Your task to perform on an android device: Check the news Image 0: 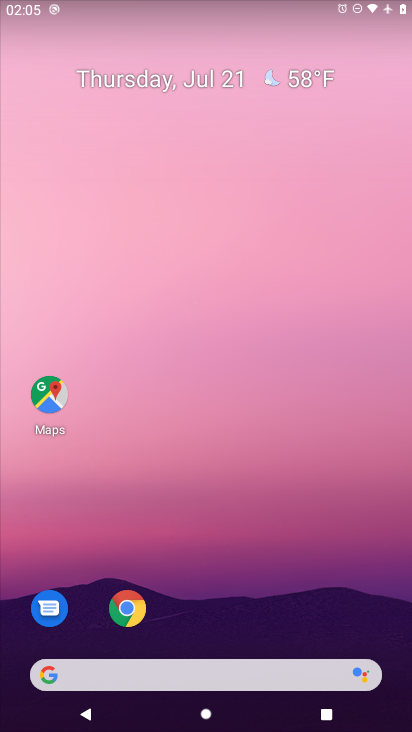
Step 0: press home button
Your task to perform on an android device: Check the news Image 1: 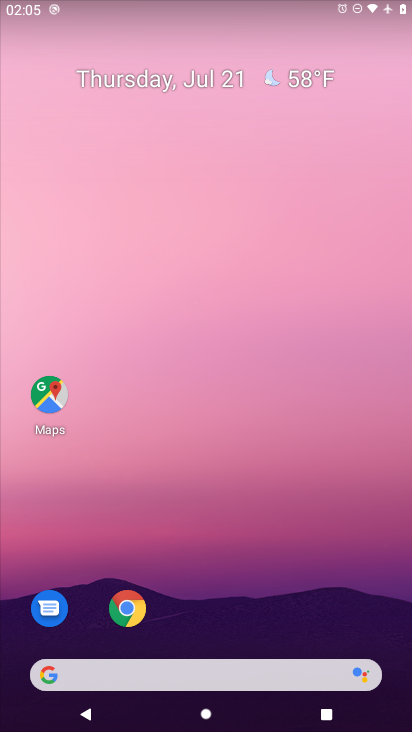
Step 1: click (52, 677)
Your task to perform on an android device: Check the news Image 2: 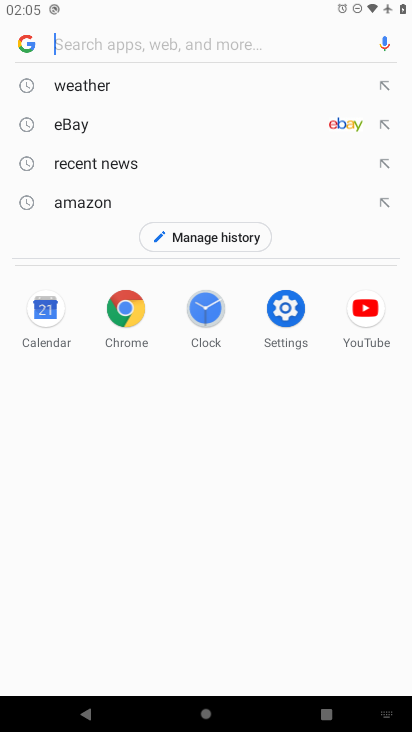
Step 2: type "news"
Your task to perform on an android device: Check the news Image 3: 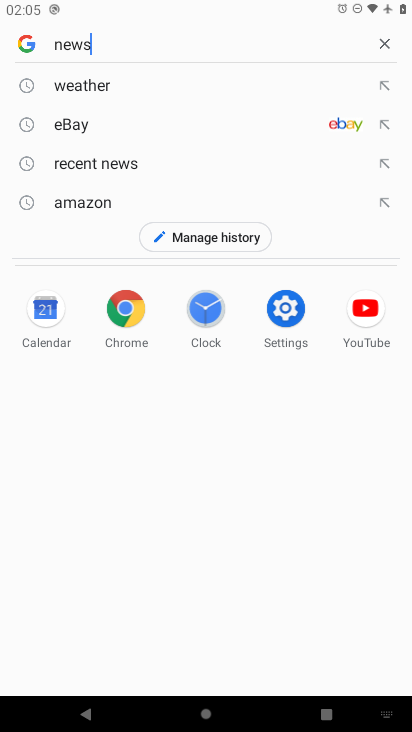
Step 3: press enter
Your task to perform on an android device: Check the news Image 4: 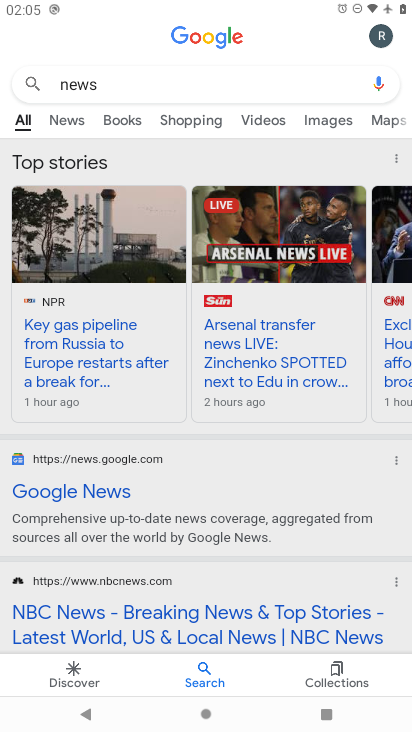
Step 4: task complete